Your task to perform on an android device: Go to internet settings Image 0: 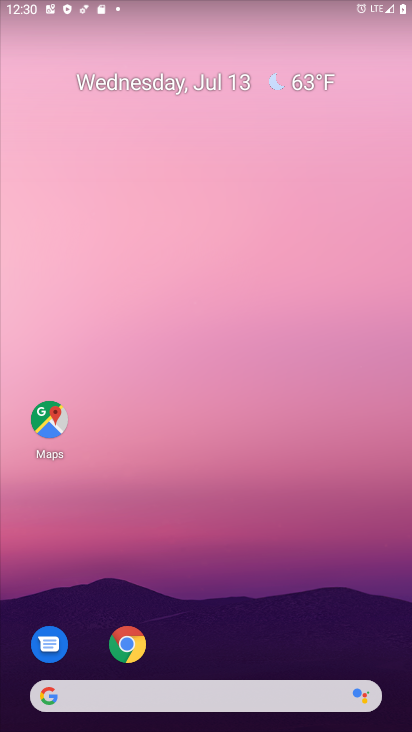
Step 0: drag from (207, 690) to (288, 274)
Your task to perform on an android device: Go to internet settings Image 1: 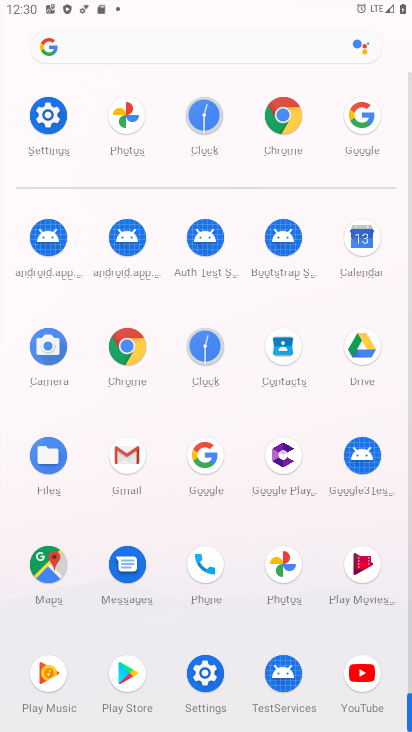
Step 1: click (49, 114)
Your task to perform on an android device: Go to internet settings Image 2: 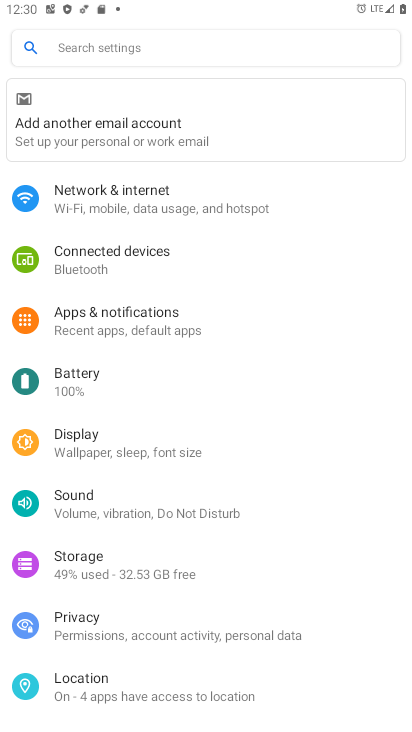
Step 2: click (87, 203)
Your task to perform on an android device: Go to internet settings Image 3: 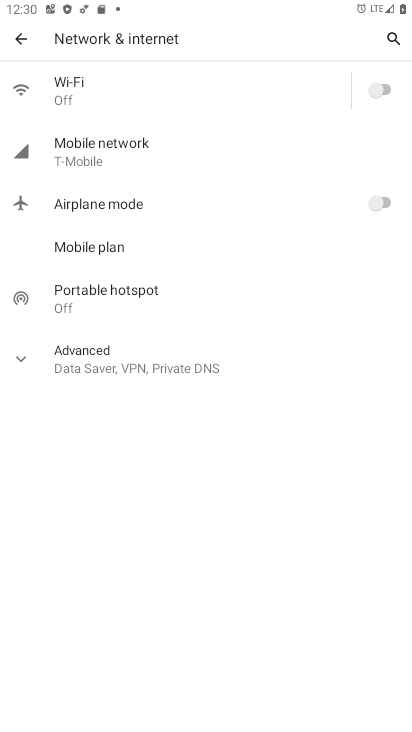
Step 3: task complete